Your task to perform on an android device: check storage Image 0: 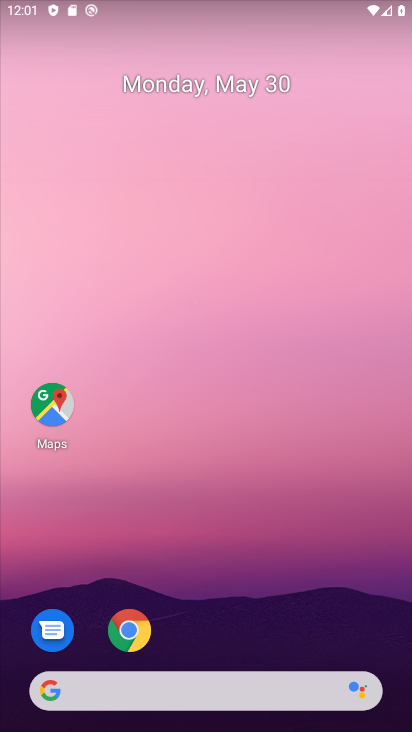
Step 0: drag from (123, 725) to (148, 78)
Your task to perform on an android device: check storage Image 1: 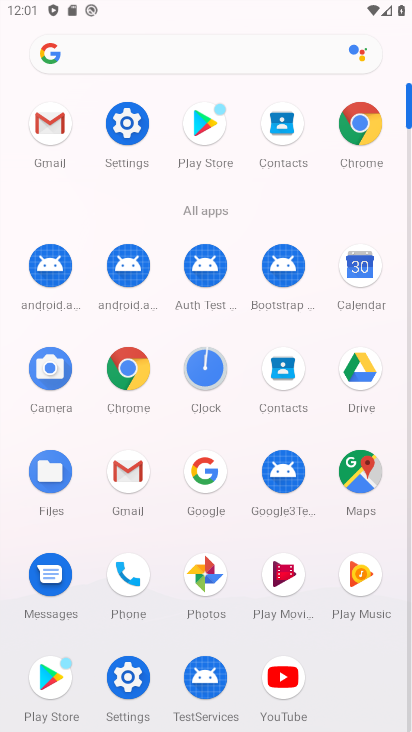
Step 1: click (124, 670)
Your task to perform on an android device: check storage Image 2: 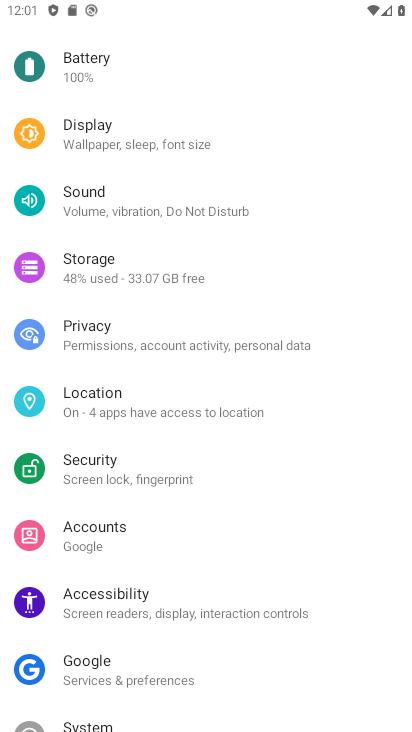
Step 2: click (128, 276)
Your task to perform on an android device: check storage Image 3: 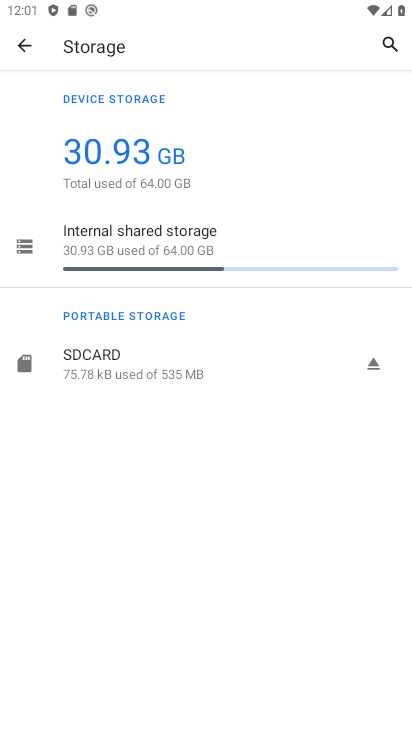
Step 3: task complete